Your task to perform on an android device: Show the shopping cart on costco.com. Search for razer kraken on costco.com, select the first entry, add it to the cart, then select checkout. Image 0: 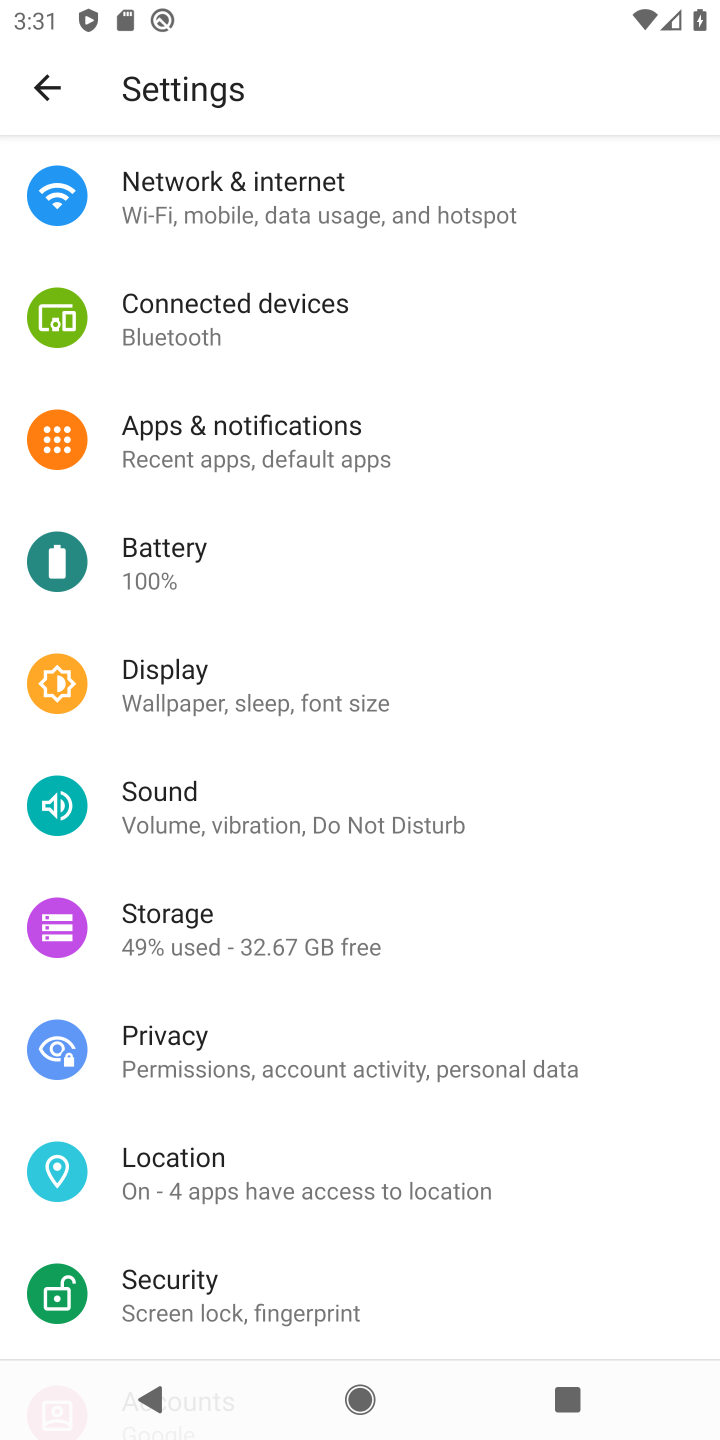
Step 0: press home button
Your task to perform on an android device: Show the shopping cart on costco.com. Search for razer kraken on costco.com, select the first entry, add it to the cart, then select checkout. Image 1: 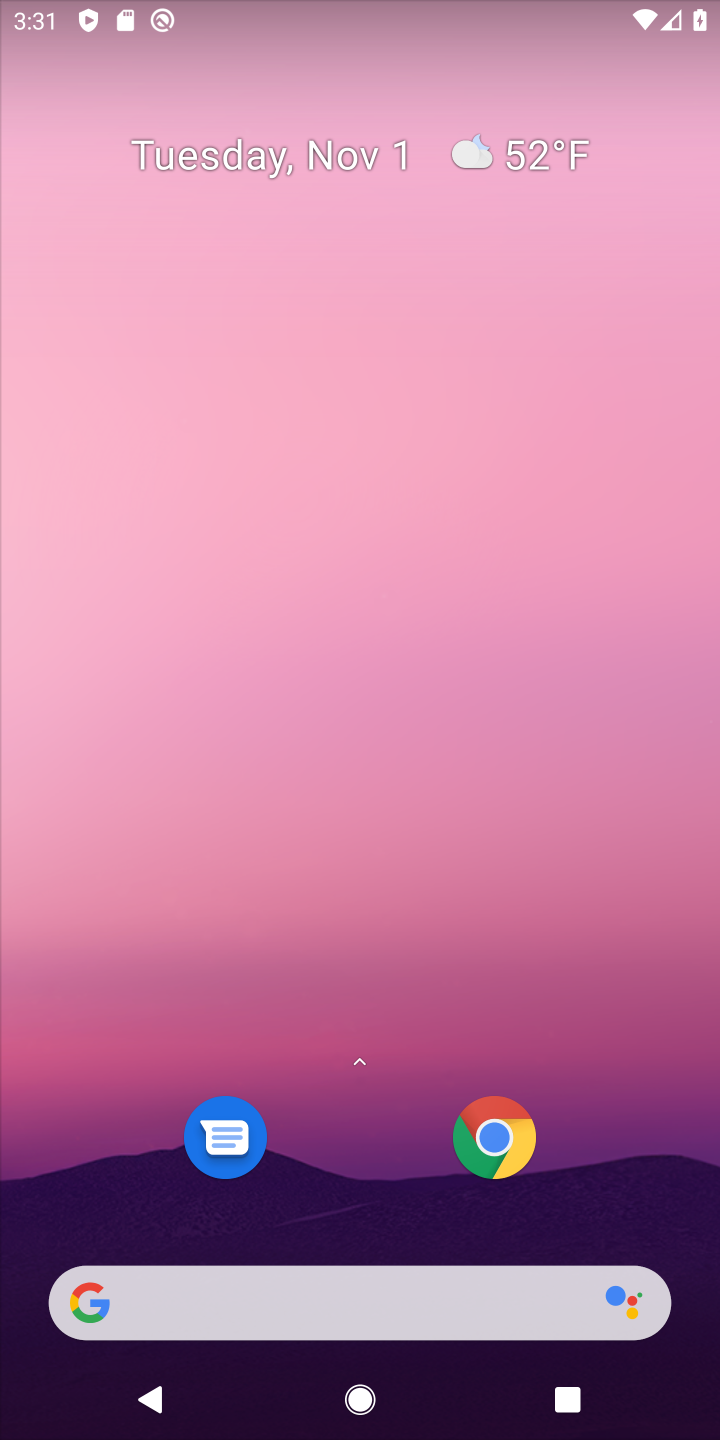
Step 1: click (408, 1310)
Your task to perform on an android device: Show the shopping cart on costco.com. Search for razer kraken on costco.com, select the first entry, add it to the cart, then select checkout. Image 2: 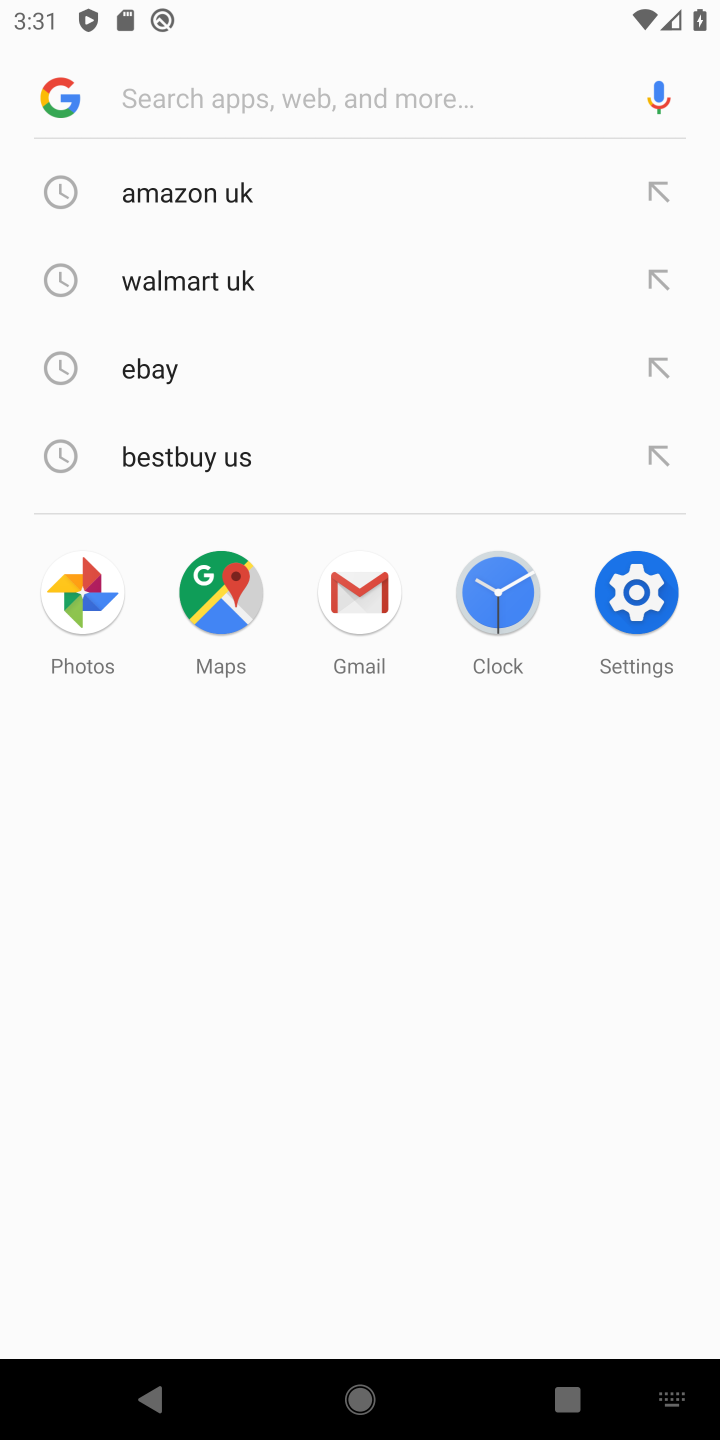
Step 2: type "costco"
Your task to perform on an android device: Show the shopping cart on costco.com. Search for razer kraken on costco.com, select the first entry, add it to the cart, then select checkout. Image 3: 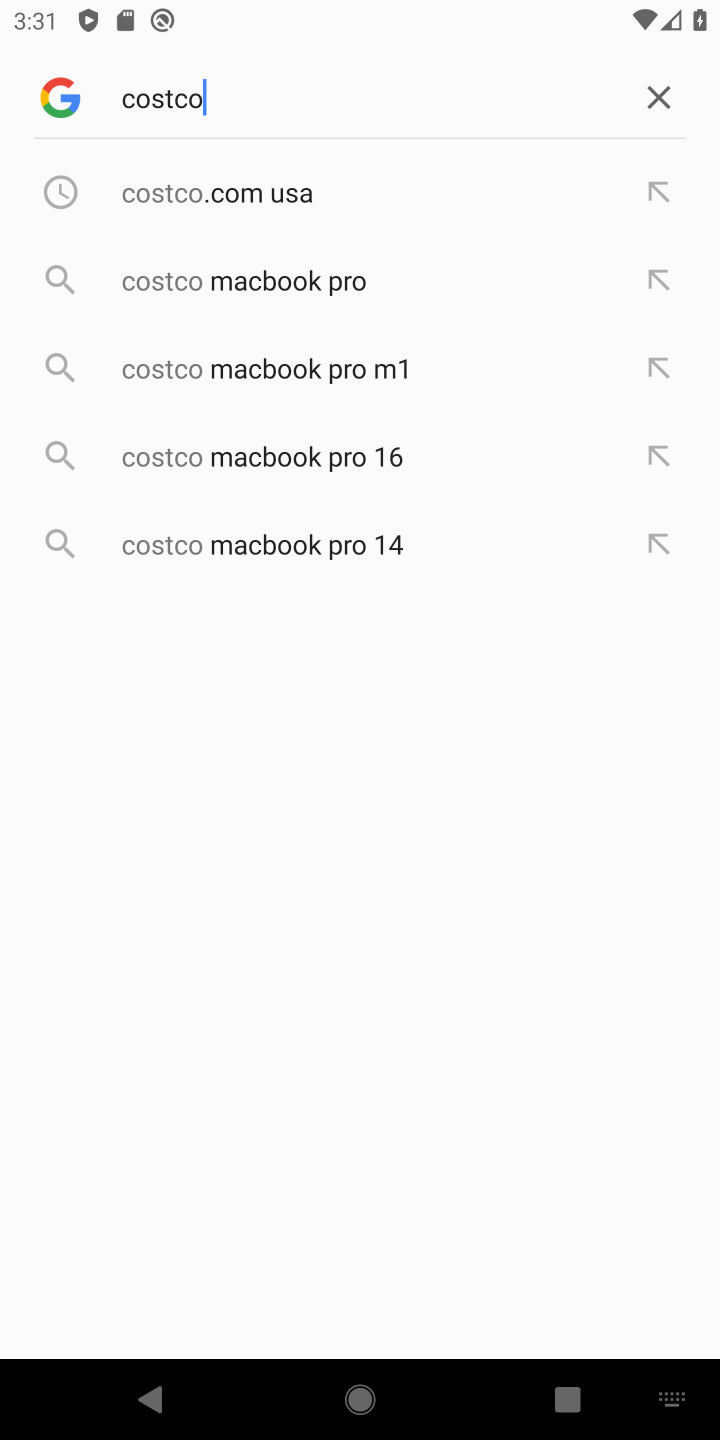
Step 3: click (258, 225)
Your task to perform on an android device: Show the shopping cart on costco.com. Search for razer kraken on costco.com, select the first entry, add it to the cart, then select checkout. Image 4: 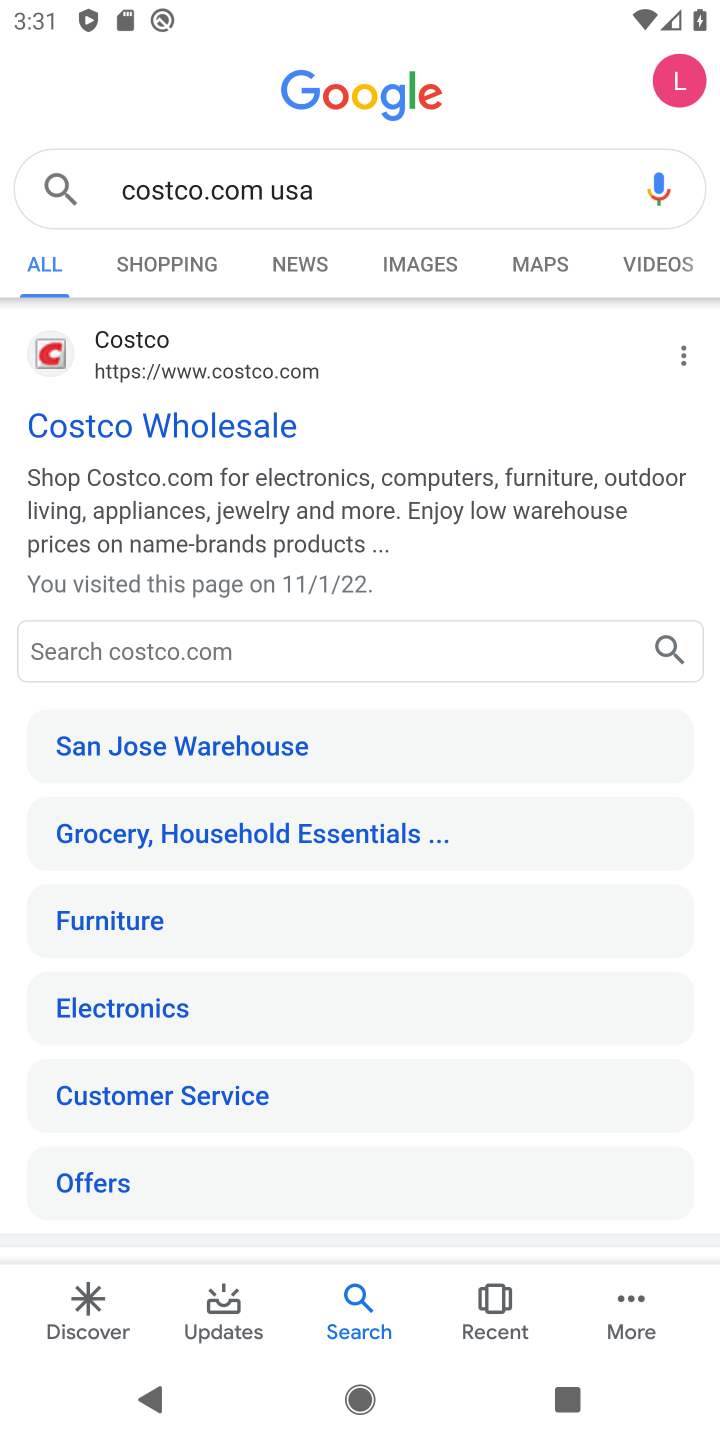
Step 4: click (287, 447)
Your task to perform on an android device: Show the shopping cart on costco.com. Search for razer kraken on costco.com, select the first entry, add it to the cart, then select checkout. Image 5: 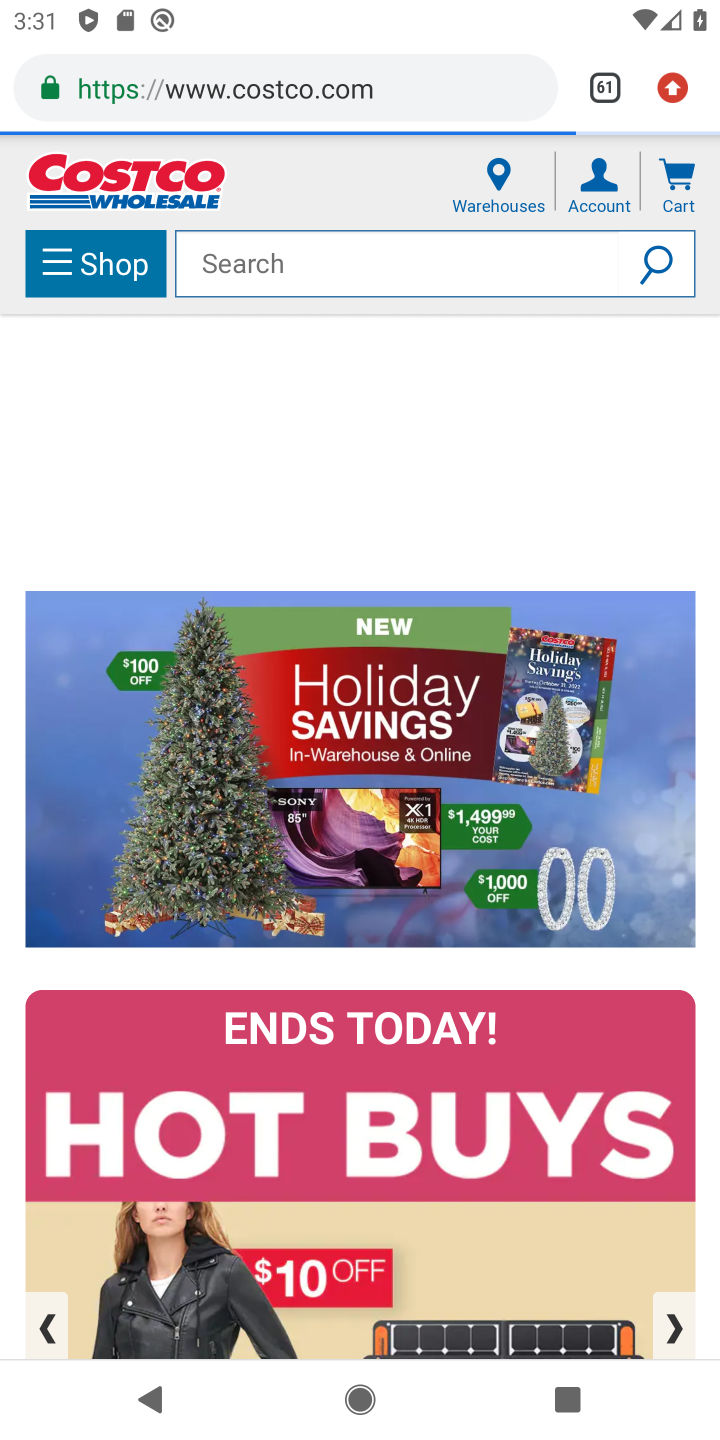
Step 5: click (306, 265)
Your task to perform on an android device: Show the shopping cart on costco.com. Search for razer kraken on costco.com, select the first entry, add it to the cart, then select checkout. Image 6: 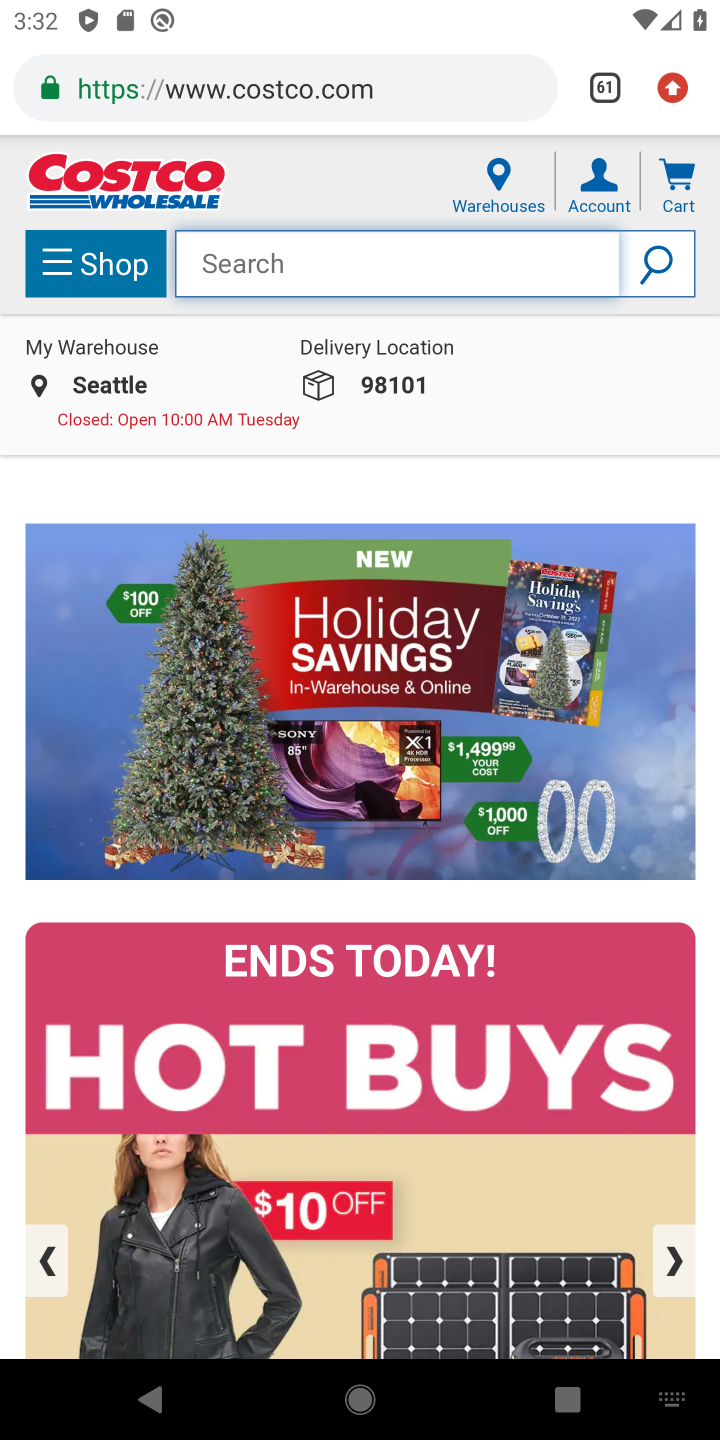
Step 6: type "razer karken"
Your task to perform on an android device: Show the shopping cart on costco.com. Search for razer kraken on costco.com, select the first entry, add it to the cart, then select checkout. Image 7: 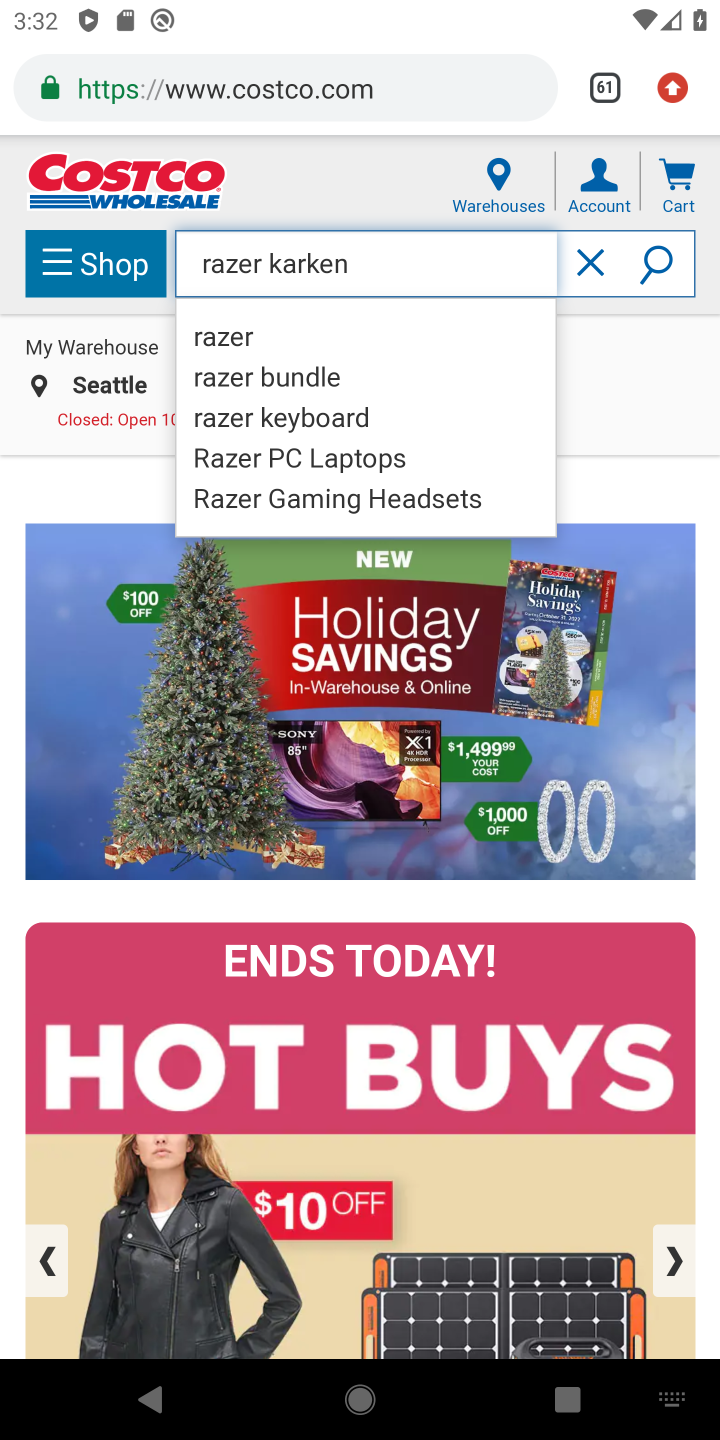
Step 7: click (670, 265)
Your task to perform on an android device: Show the shopping cart on costco.com. Search for razer kraken on costco.com, select the first entry, add it to the cart, then select checkout. Image 8: 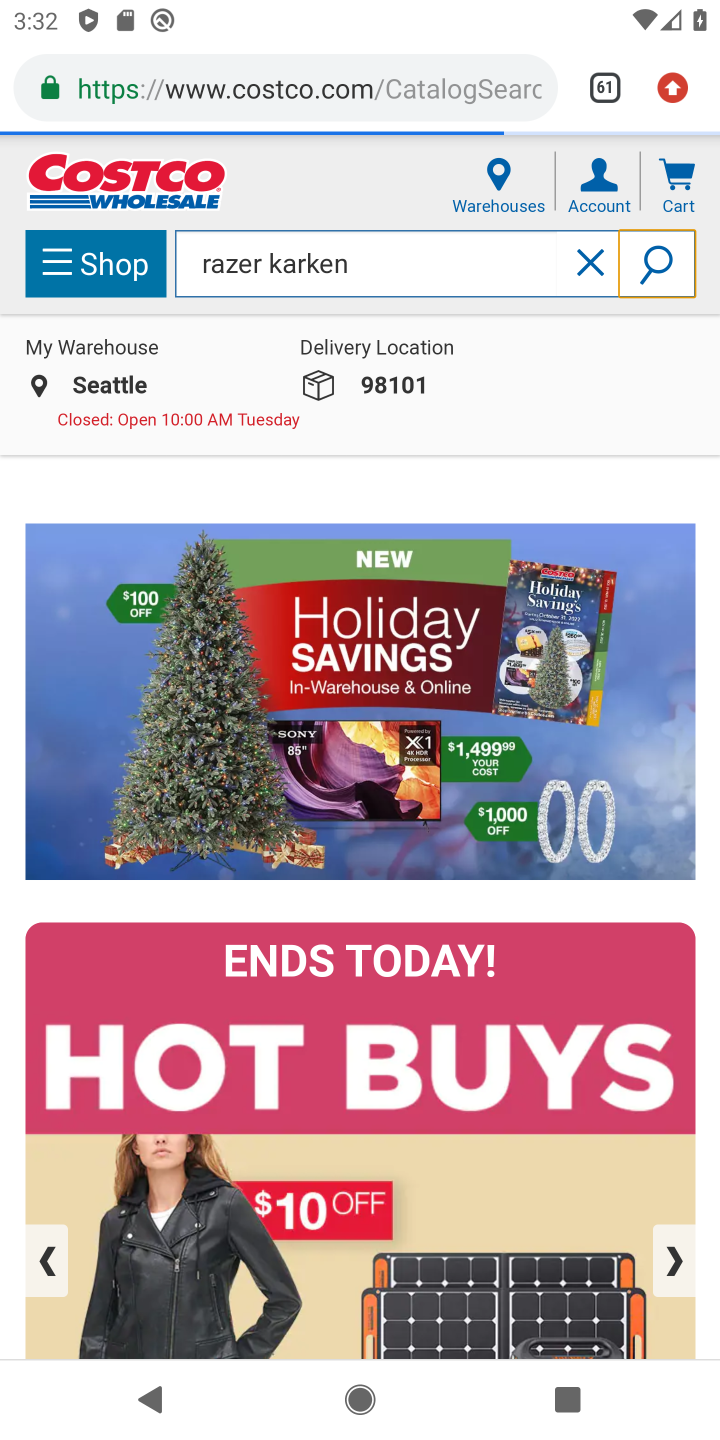
Step 8: task complete